Your task to perform on an android device: Open network settings Image 0: 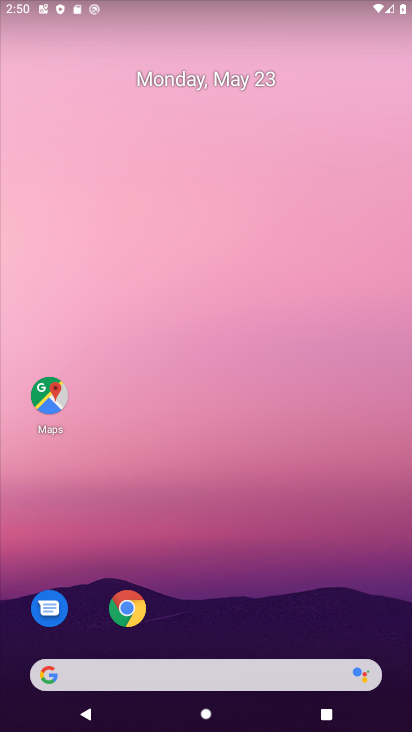
Step 0: drag from (219, 583) to (157, 215)
Your task to perform on an android device: Open network settings Image 1: 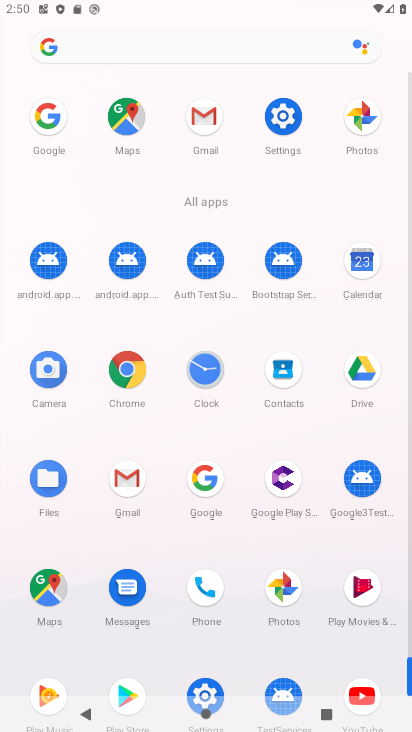
Step 1: click (281, 117)
Your task to perform on an android device: Open network settings Image 2: 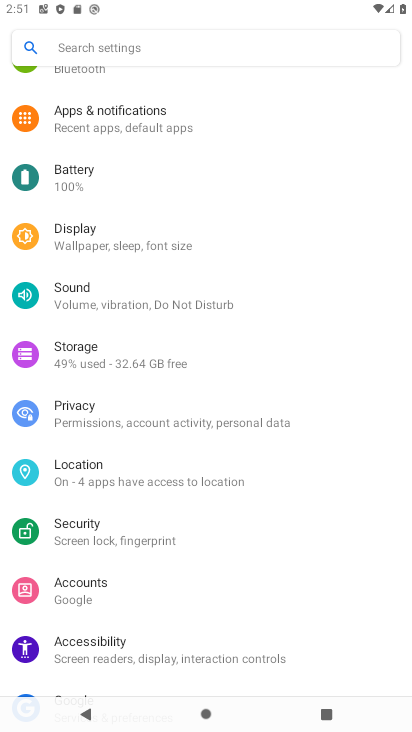
Step 2: drag from (186, 374) to (224, 449)
Your task to perform on an android device: Open network settings Image 3: 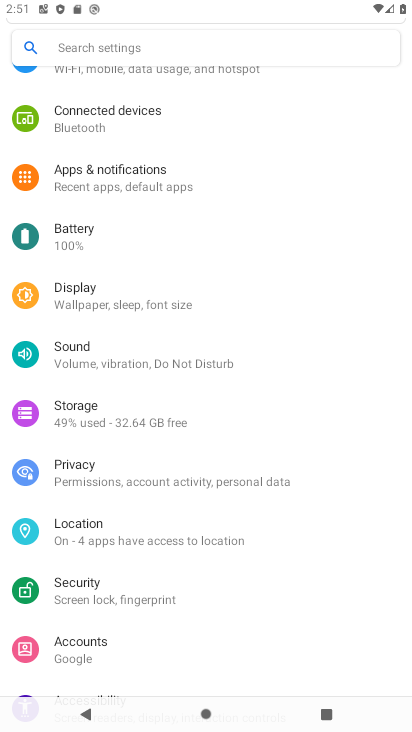
Step 3: drag from (183, 249) to (227, 359)
Your task to perform on an android device: Open network settings Image 4: 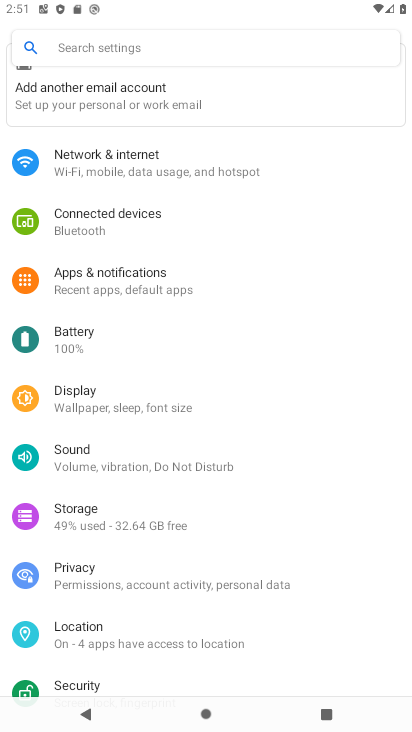
Step 4: click (136, 167)
Your task to perform on an android device: Open network settings Image 5: 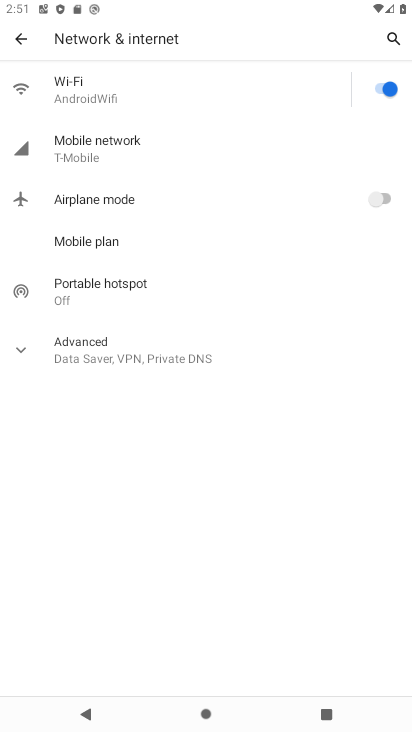
Step 5: click (109, 150)
Your task to perform on an android device: Open network settings Image 6: 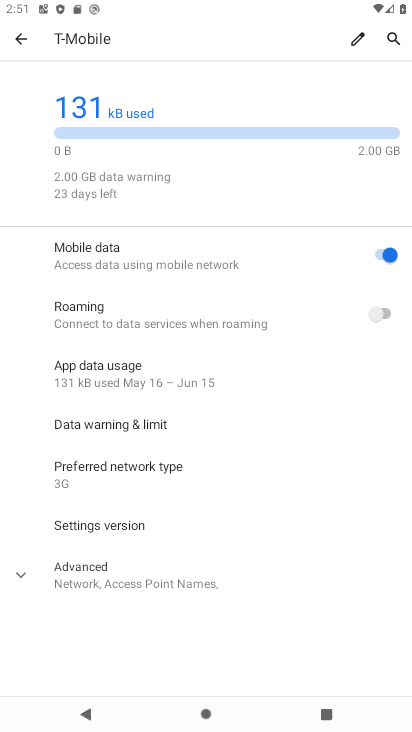
Step 6: task complete